Your task to perform on an android device: set the stopwatch Image 0: 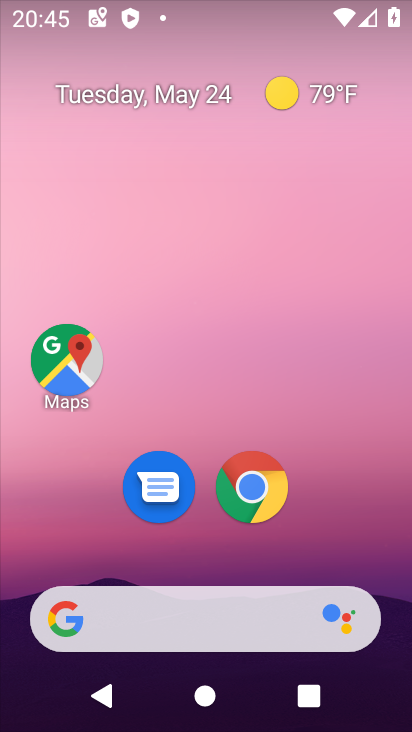
Step 0: drag from (360, 549) to (271, 96)
Your task to perform on an android device: set the stopwatch Image 1: 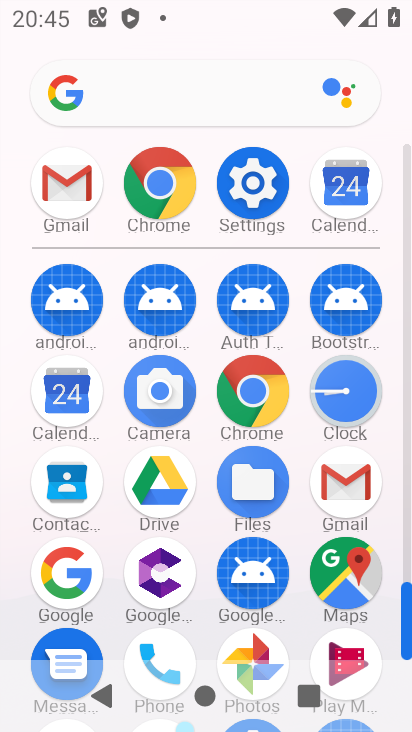
Step 1: click (363, 375)
Your task to perform on an android device: set the stopwatch Image 2: 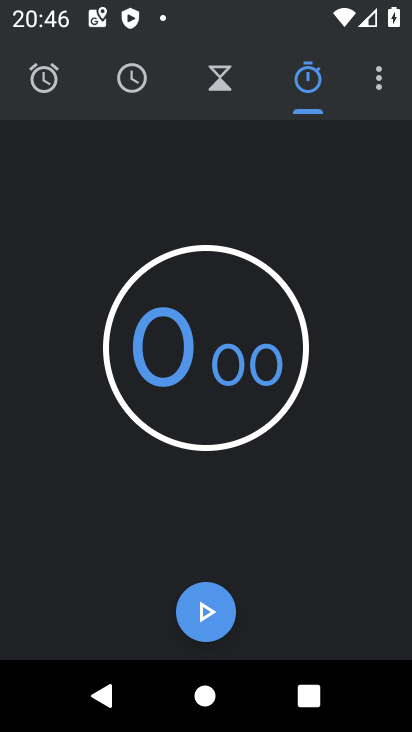
Step 2: task complete